Your task to perform on an android device: set default search engine in the chrome app Image 0: 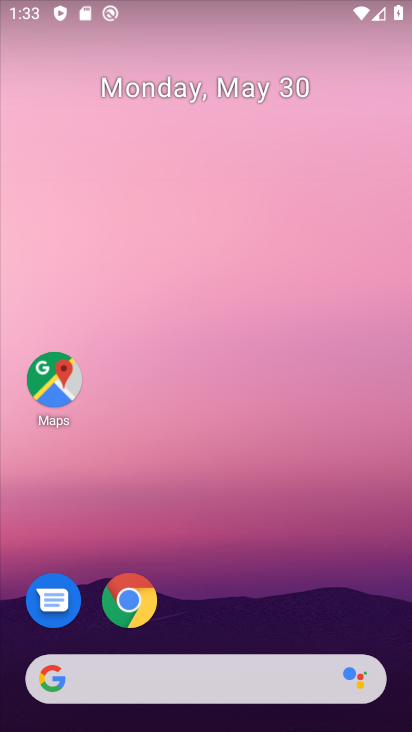
Step 0: click (129, 627)
Your task to perform on an android device: set default search engine in the chrome app Image 1: 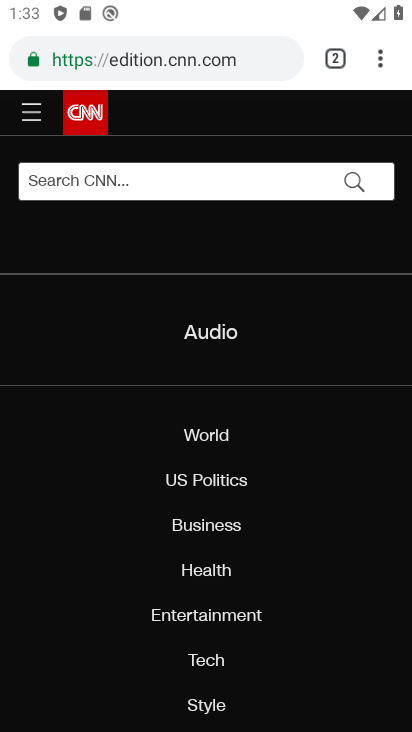
Step 1: click (373, 69)
Your task to perform on an android device: set default search engine in the chrome app Image 2: 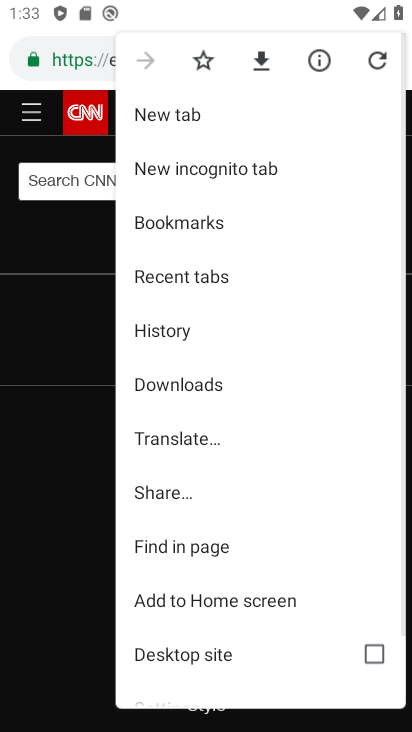
Step 2: drag from (200, 653) to (199, 262)
Your task to perform on an android device: set default search engine in the chrome app Image 3: 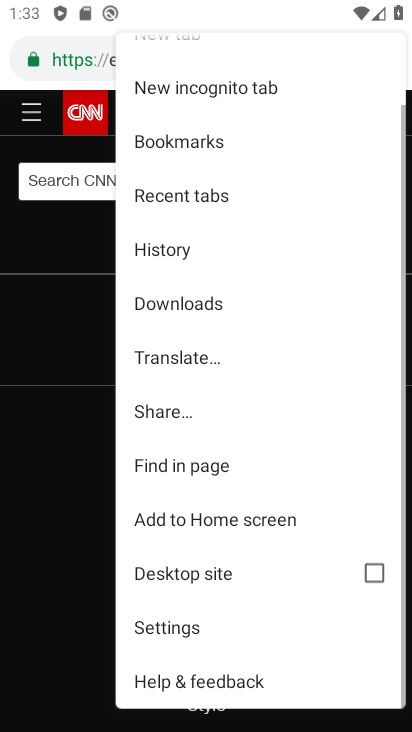
Step 3: click (183, 628)
Your task to perform on an android device: set default search engine in the chrome app Image 4: 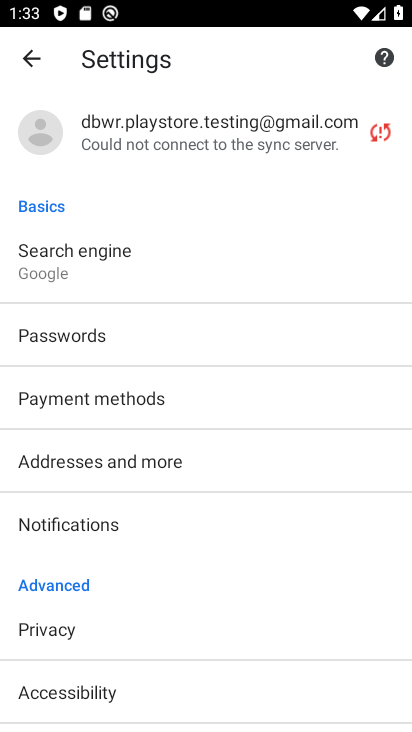
Step 4: click (90, 267)
Your task to perform on an android device: set default search engine in the chrome app Image 5: 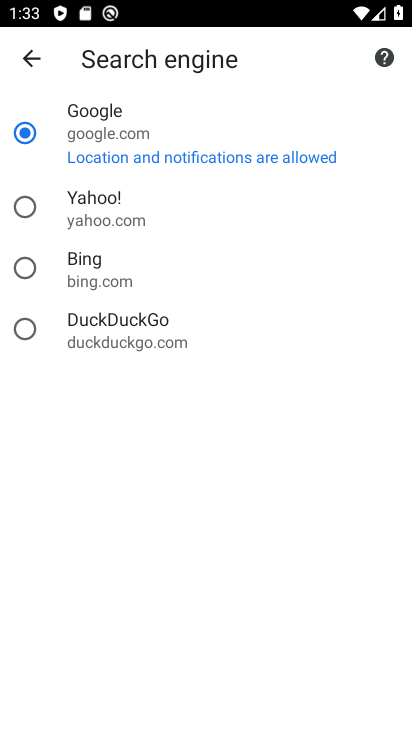
Step 5: click (53, 118)
Your task to perform on an android device: set default search engine in the chrome app Image 6: 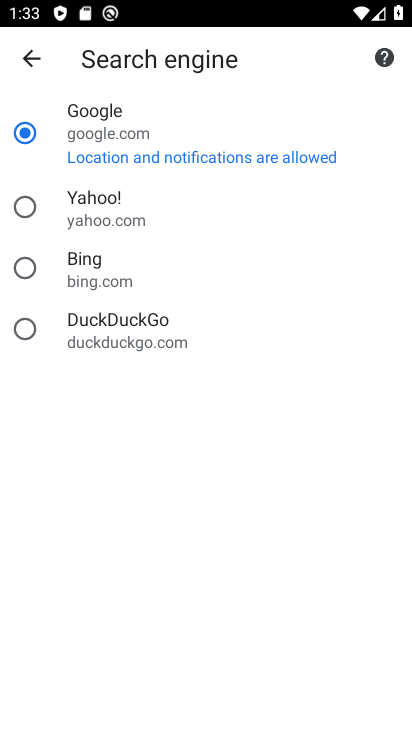
Step 6: task complete